Your task to perform on an android device: Search for pizza restaurants on Maps Image 0: 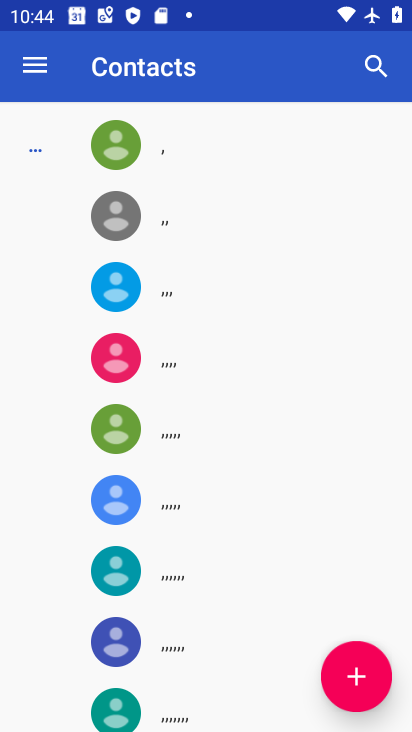
Step 0: press home button
Your task to perform on an android device: Search for pizza restaurants on Maps Image 1: 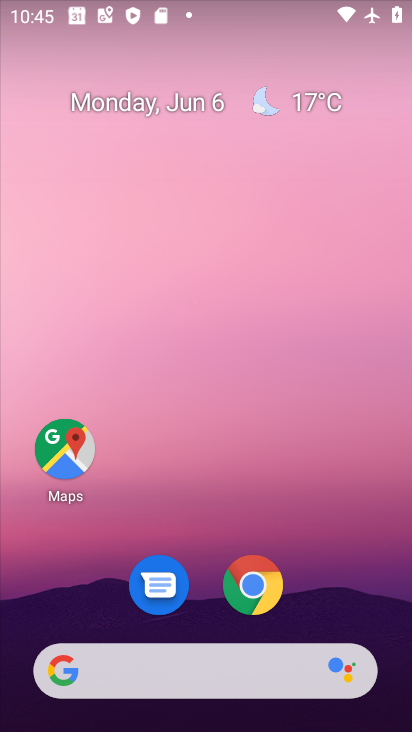
Step 1: click (61, 443)
Your task to perform on an android device: Search for pizza restaurants on Maps Image 2: 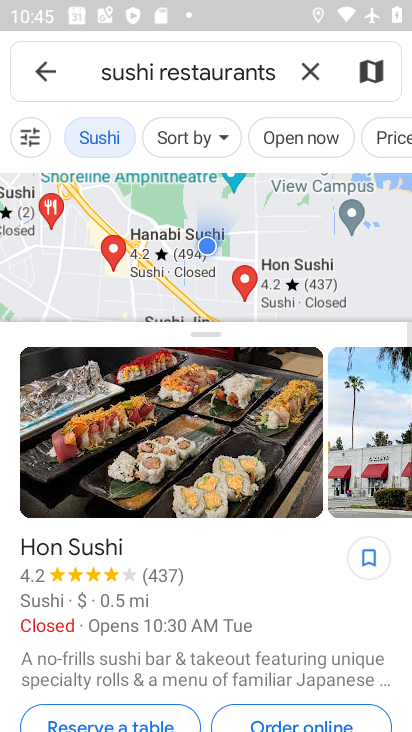
Step 2: click (306, 67)
Your task to perform on an android device: Search for pizza restaurants on Maps Image 3: 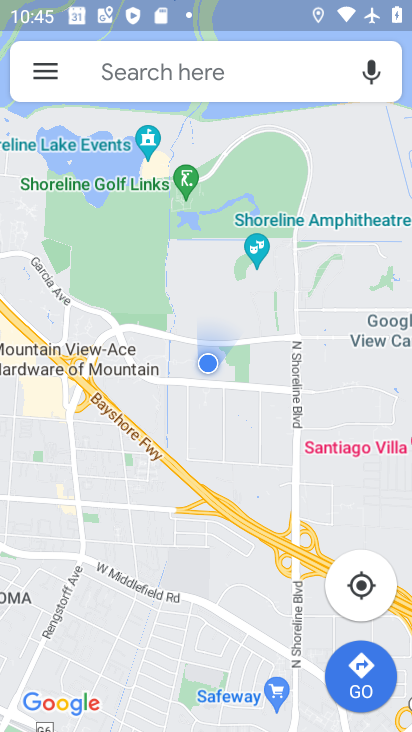
Step 3: click (236, 74)
Your task to perform on an android device: Search for pizza restaurants on Maps Image 4: 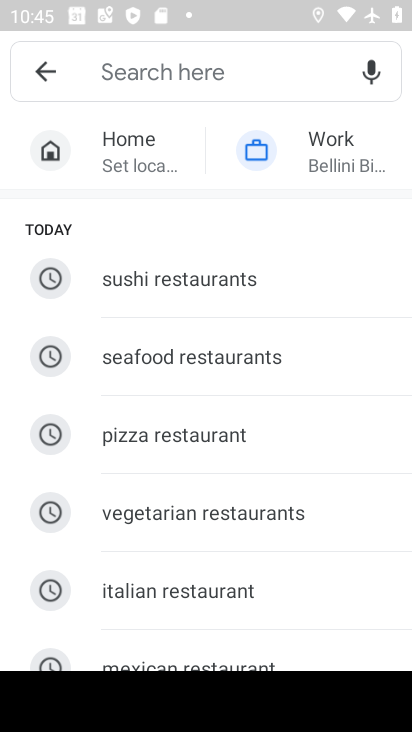
Step 4: click (200, 431)
Your task to perform on an android device: Search for pizza restaurants on Maps Image 5: 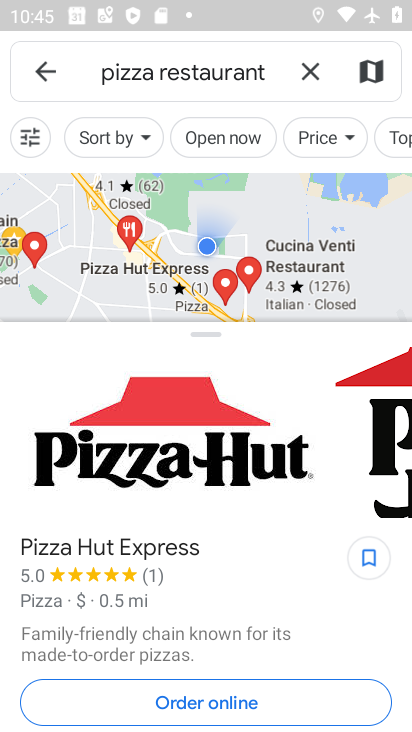
Step 5: task complete